Your task to perform on an android device: turn off data saver in the chrome app Image 0: 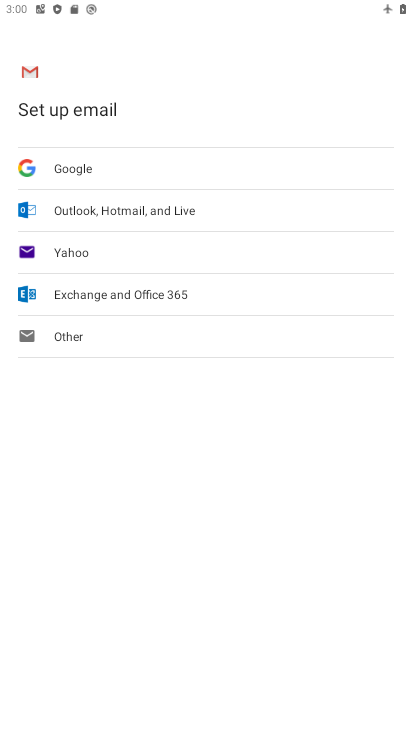
Step 0: press home button
Your task to perform on an android device: turn off data saver in the chrome app Image 1: 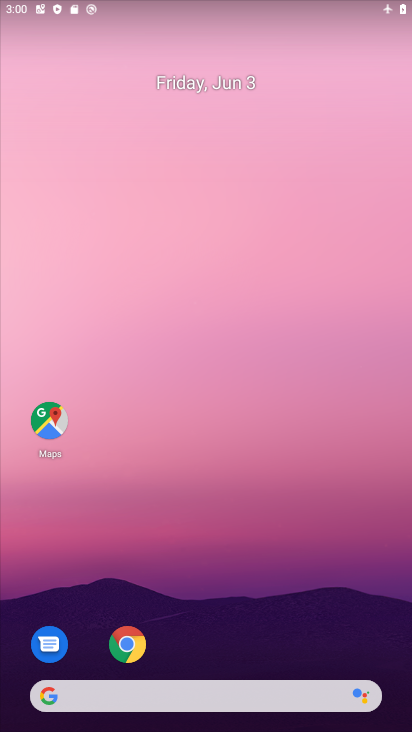
Step 1: click (130, 647)
Your task to perform on an android device: turn off data saver in the chrome app Image 2: 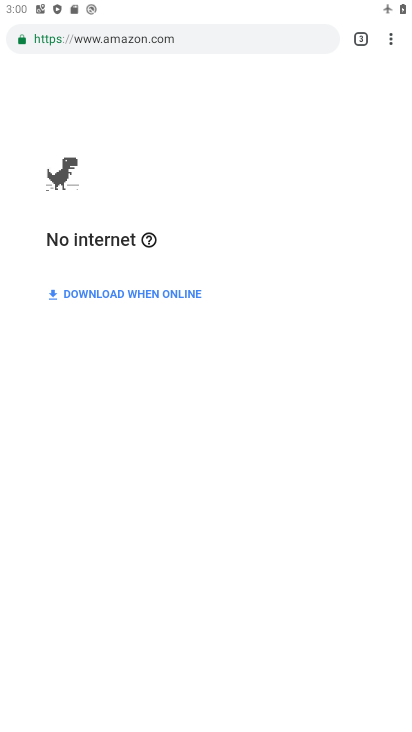
Step 2: click (390, 46)
Your task to perform on an android device: turn off data saver in the chrome app Image 3: 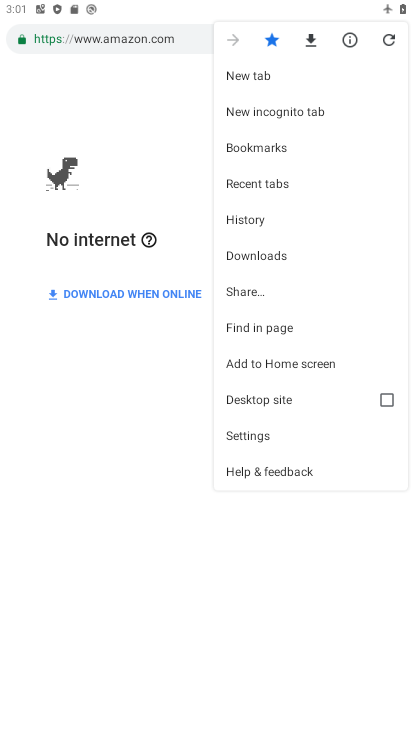
Step 3: click (278, 431)
Your task to perform on an android device: turn off data saver in the chrome app Image 4: 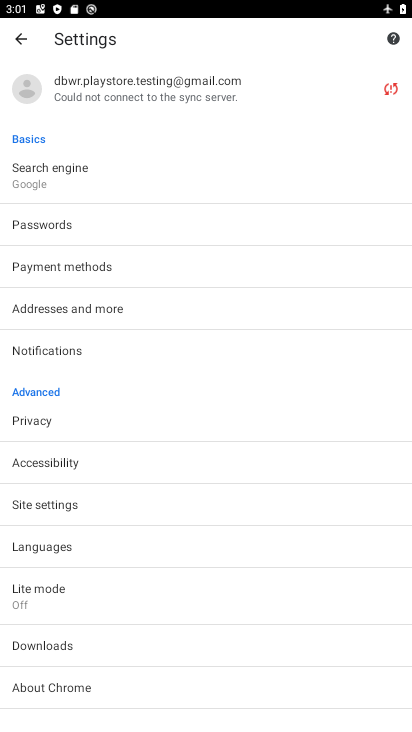
Step 4: click (107, 586)
Your task to perform on an android device: turn off data saver in the chrome app Image 5: 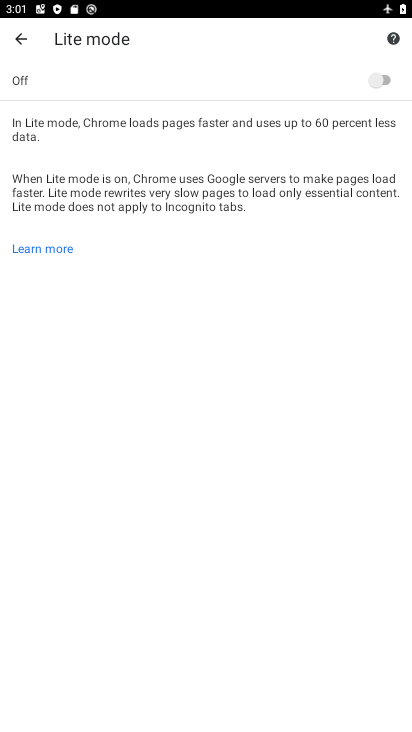
Step 5: task complete